Your task to perform on an android device: allow cookies in the chrome app Image 0: 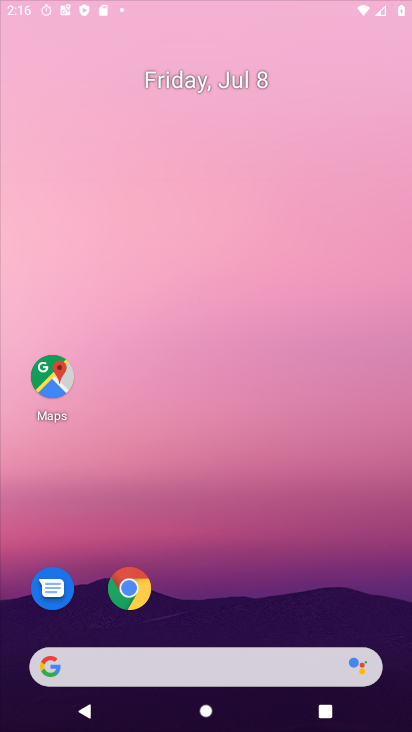
Step 0: press home button
Your task to perform on an android device: allow cookies in the chrome app Image 1: 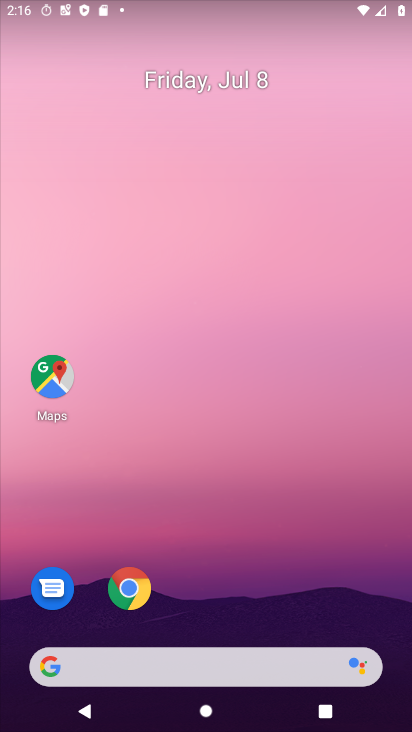
Step 1: drag from (250, 579) to (239, 87)
Your task to perform on an android device: allow cookies in the chrome app Image 2: 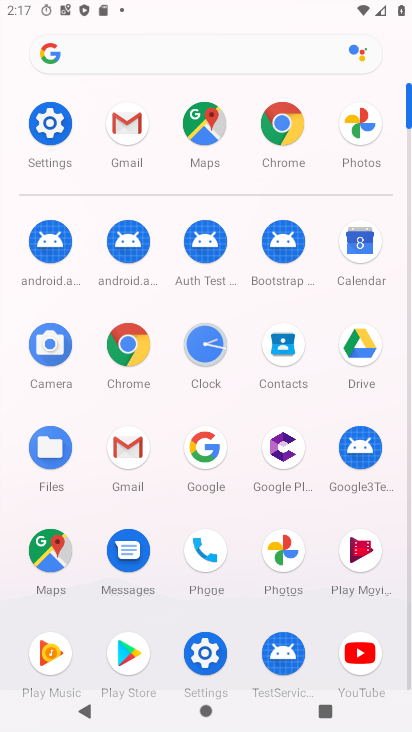
Step 2: click (287, 121)
Your task to perform on an android device: allow cookies in the chrome app Image 3: 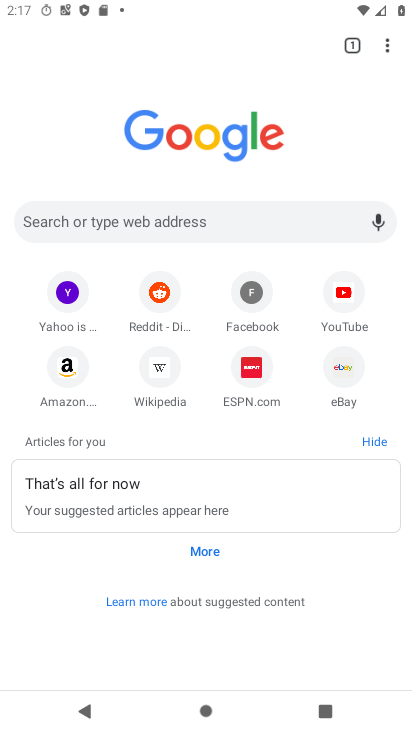
Step 3: drag from (385, 49) to (237, 375)
Your task to perform on an android device: allow cookies in the chrome app Image 4: 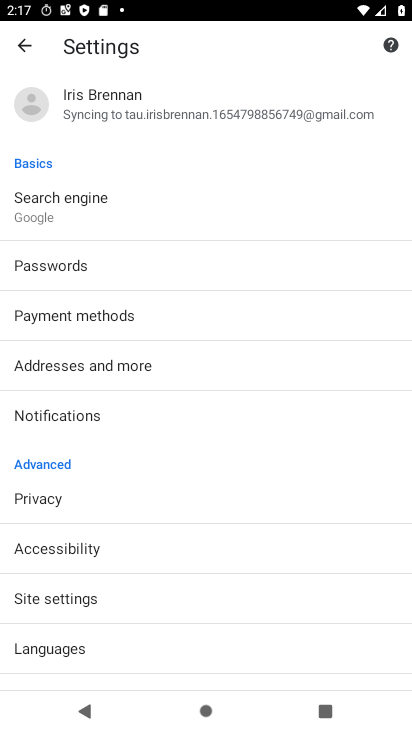
Step 4: click (47, 599)
Your task to perform on an android device: allow cookies in the chrome app Image 5: 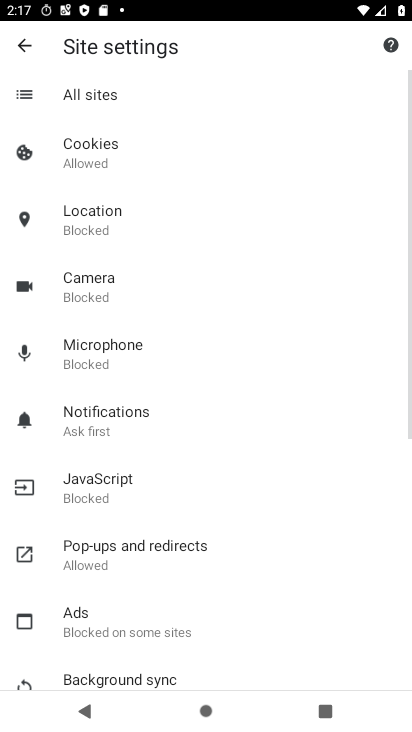
Step 5: click (92, 138)
Your task to perform on an android device: allow cookies in the chrome app Image 6: 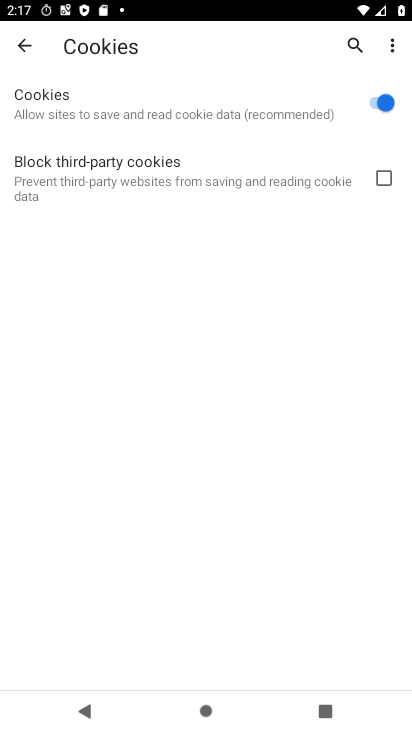
Step 6: task complete